Your task to perform on an android device: Open accessibility settings Image 0: 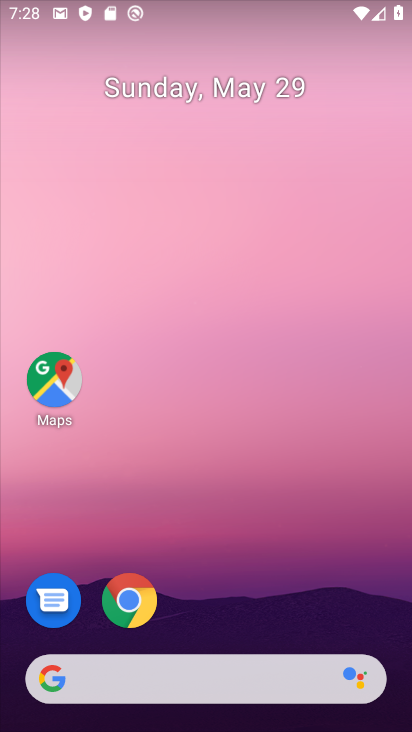
Step 0: press home button
Your task to perform on an android device: Open accessibility settings Image 1: 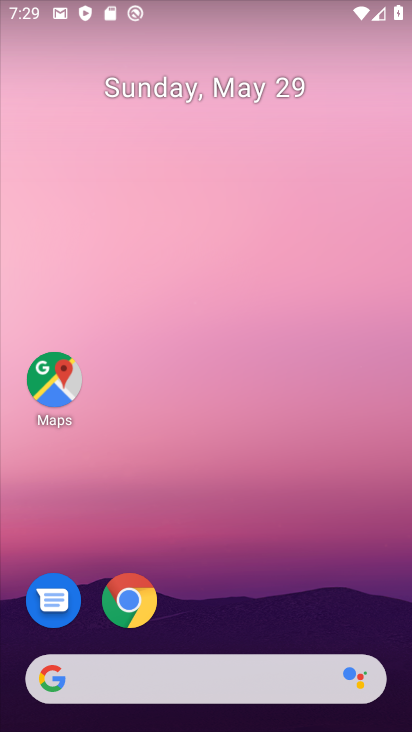
Step 1: drag from (359, 605) to (360, 130)
Your task to perform on an android device: Open accessibility settings Image 2: 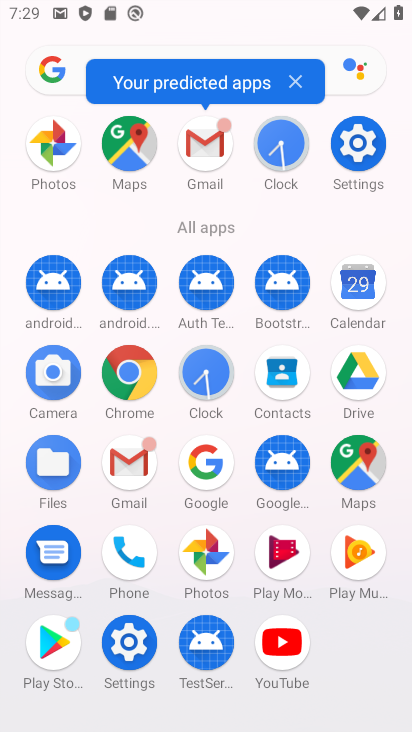
Step 2: click (366, 150)
Your task to perform on an android device: Open accessibility settings Image 3: 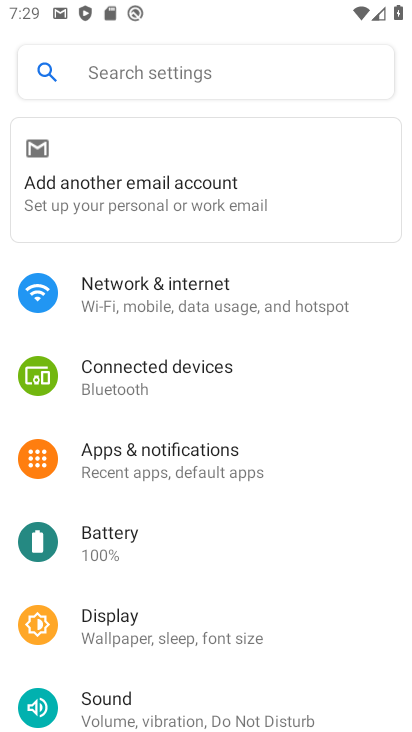
Step 3: drag from (231, 639) to (251, 276)
Your task to perform on an android device: Open accessibility settings Image 4: 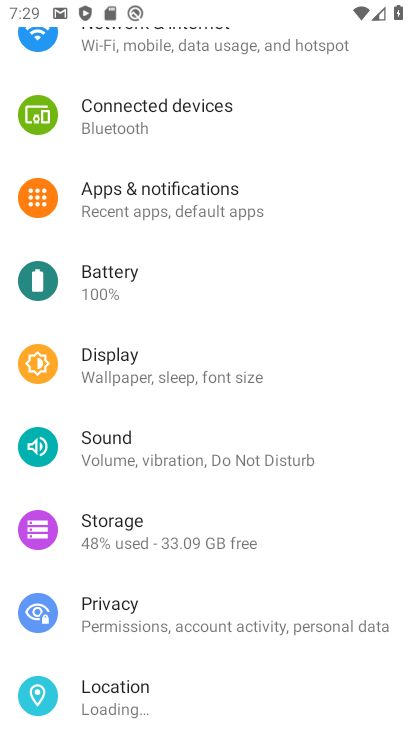
Step 4: drag from (273, 623) to (306, 314)
Your task to perform on an android device: Open accessibility settings Image 5: 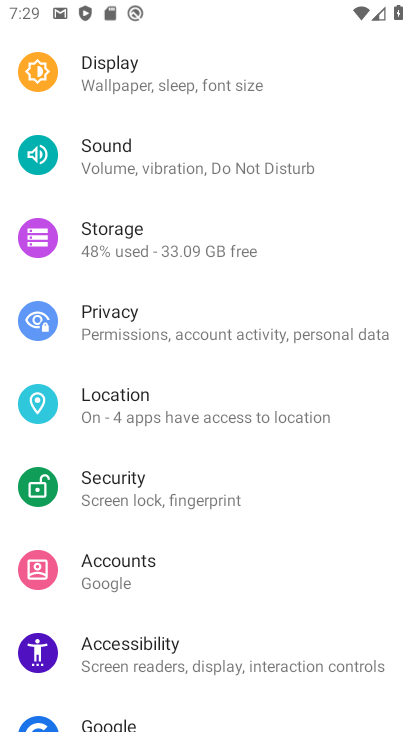
Step 5: drag from (242, 607) to (295, 352)
Your task to perform on an android device: Open accessibility settings Image 6: 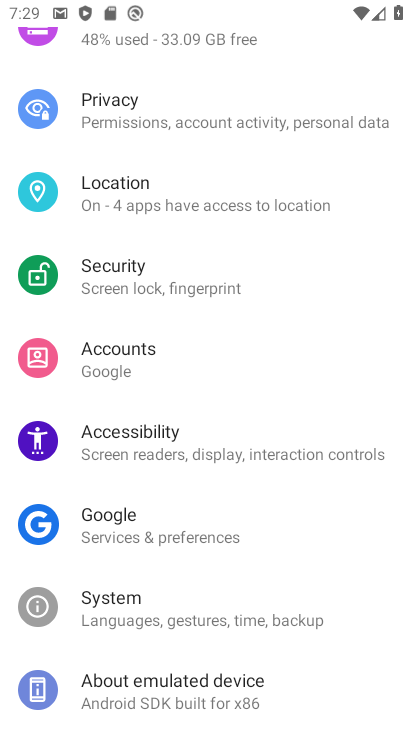
Step 6: click (198, 439)
Your task to perform on an android device: Open accessibility settings Image 7: 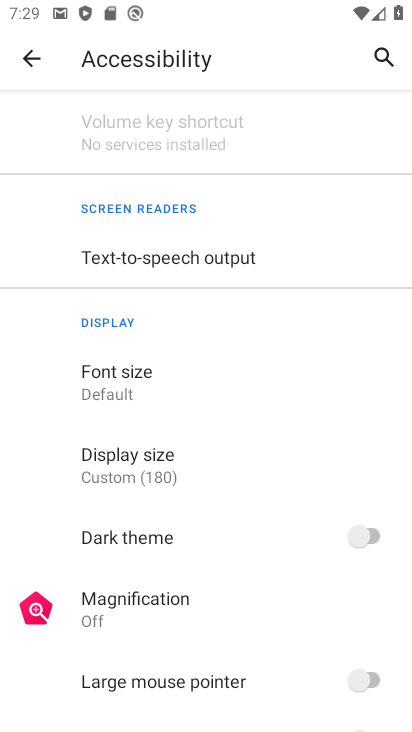
Step 7: task complete